Your task to perform on an android device: delete a single message in the gmail app Image 0: 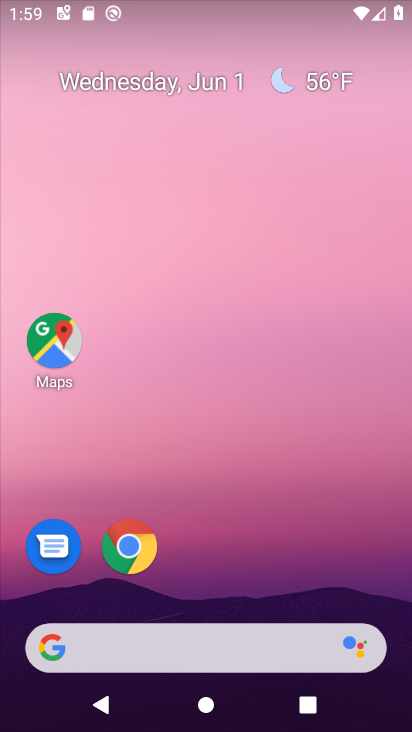
Step 0: drag from (160, 731) to (281, 38)
Your task to perform on an android device: delete a single message in the gmail app Image 1: 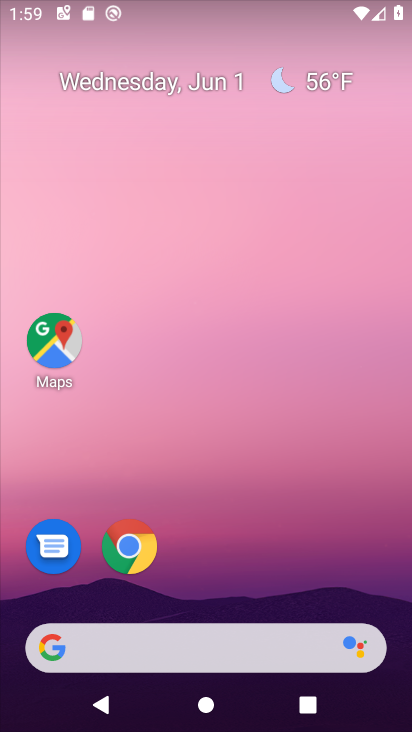
Step 1: drag from (133, 726) to (135, 97)
Your task to perform on an android device: delete a single message in the gmail app Image 2: 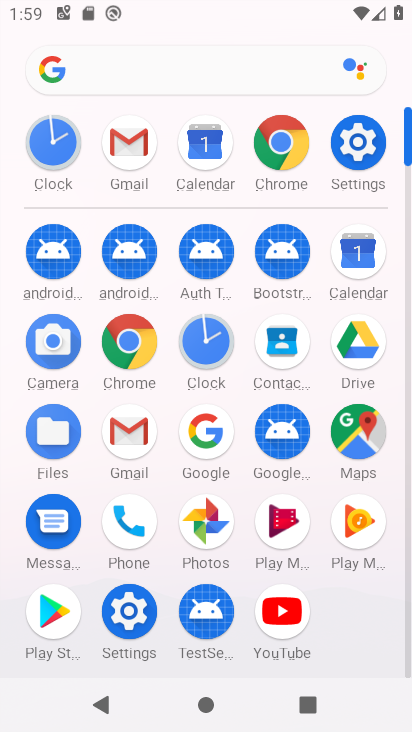
Step 2: click (133, 161)
Your task to perform on an android device: delete a single message in the gmail app Image 3: 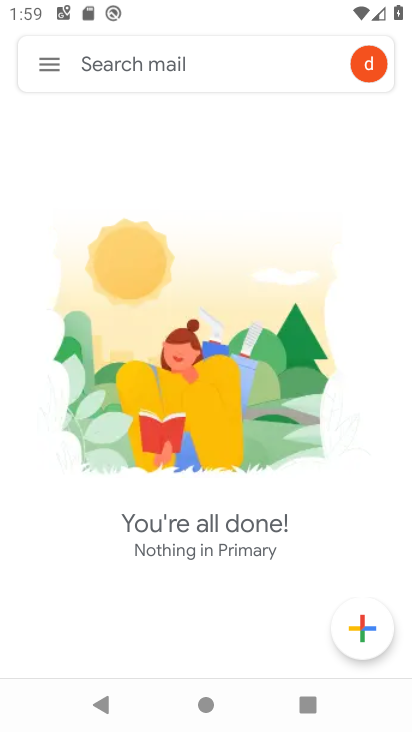
Step 3: click (46, 74)
Your task to perform on an android device: delete a single message in the gmail app Image 4: 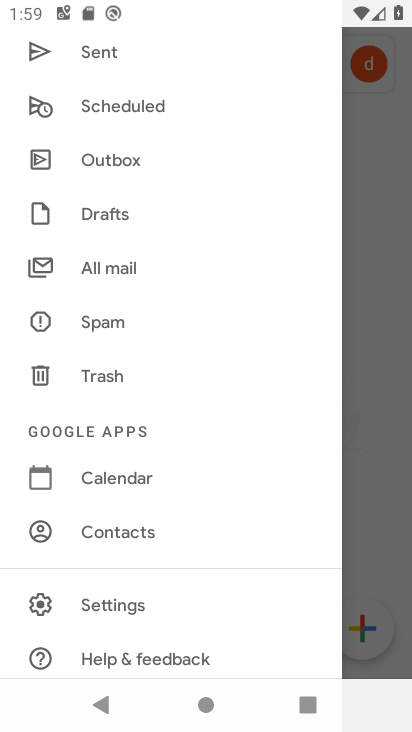
Step 4: click (123, 275)
Your task to perform on an android device: delete a single message in the gmail app Image 5: 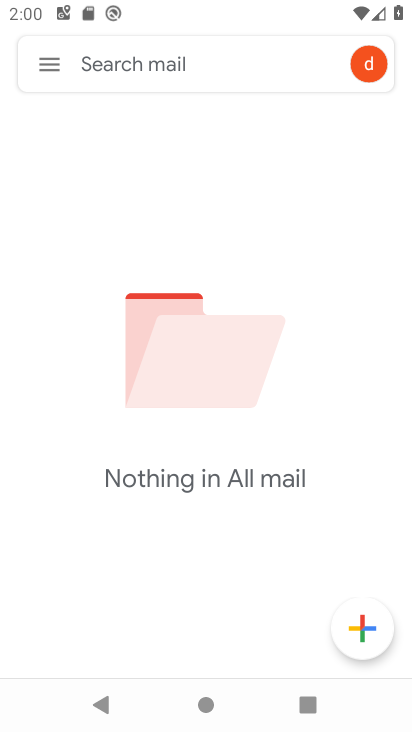
Step 5: task complete